Your task to perform on an android device: clear all cookies in the chrome app Image 0: 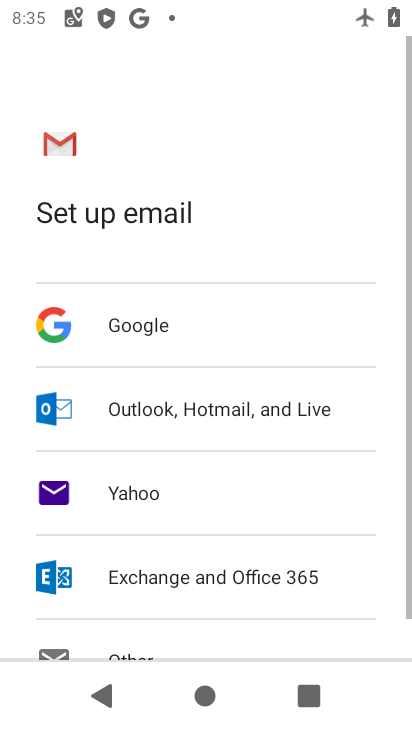
Step 0: press home button
Your task to perform on an android device: clear all cookies in the chrome app Image 1: 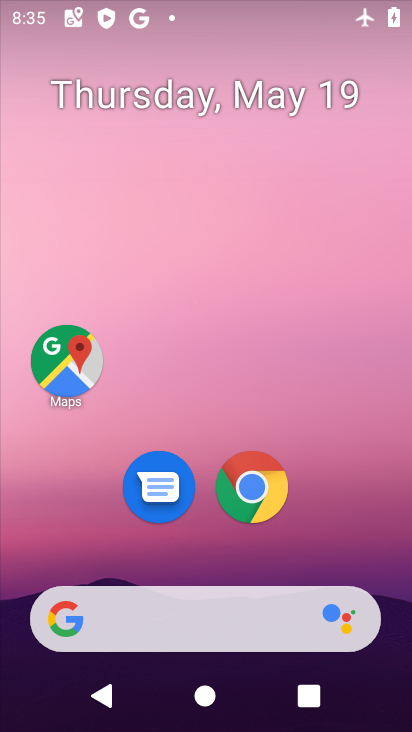
Step 1: click (249, 494)
Your task to perform on an android device: clear all cookies in the chrome app Image 2: 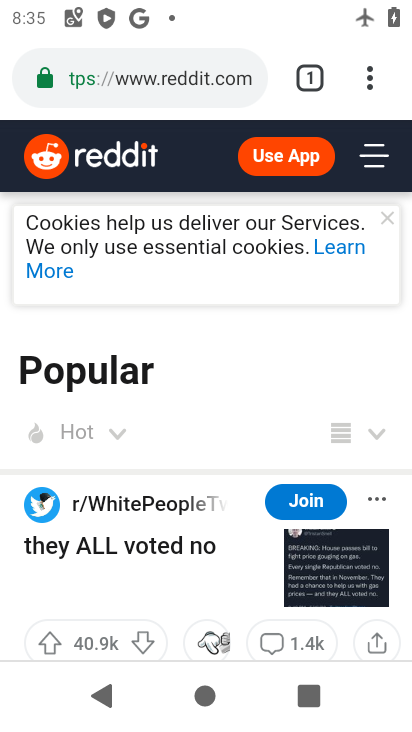
Step 2: click (359, 84)
Your task to perform on an android device: clear all cookies in the chrome app Image 3: 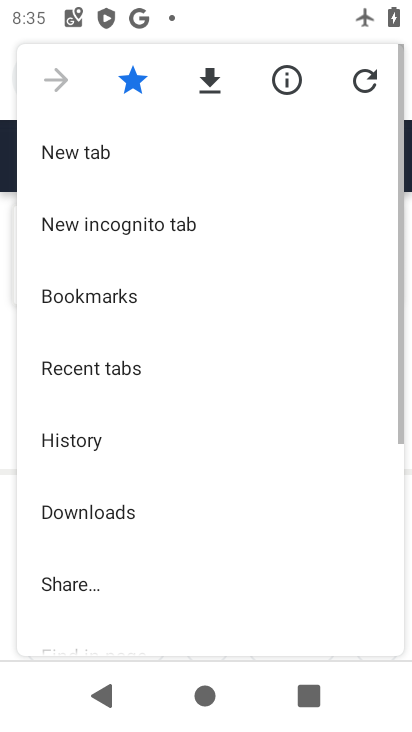
Step 3: drag from (242, 578) to (231, 131)
Your task to perform on an android device: clear all cookies in the chrome app Image 4: 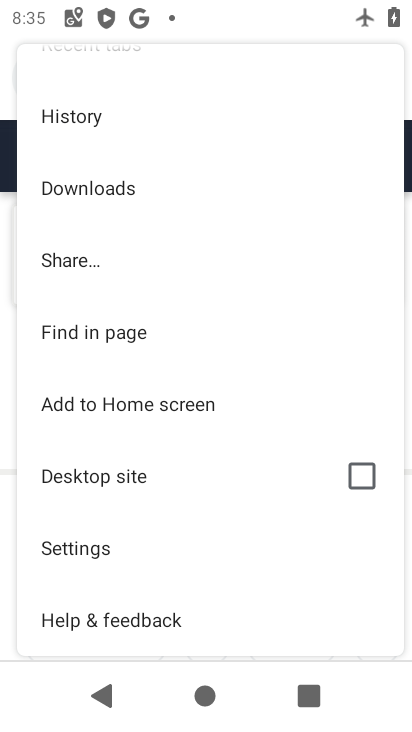
Step 4: click (81, 551)
Your task to perform on an android device: clear all cookies in the chrome app Image 5: 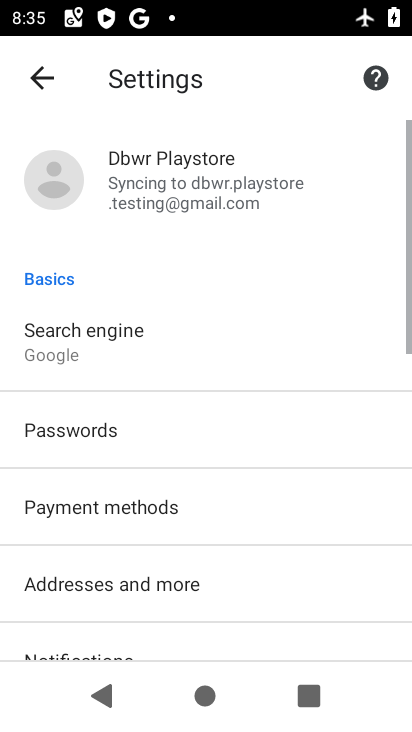
Step 5: drag from (122, 576) to (96, 133)
Your task to perform on an android device: clear all cookies in the chrome app Image 6: 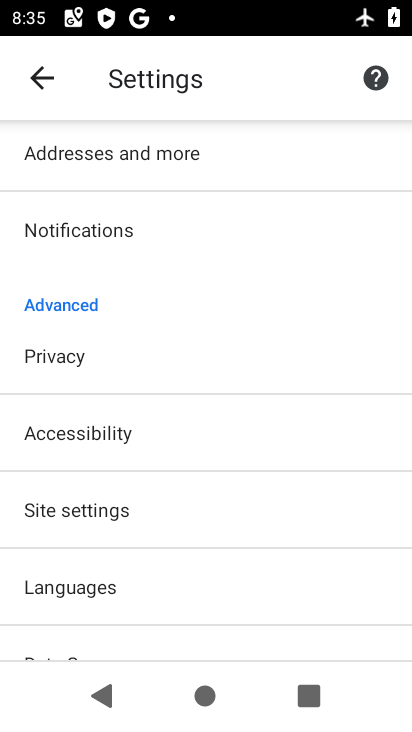
Step 6: click (69, 357)
Your task to perform on an android device: clear all cookies in the chrome app Image 7: 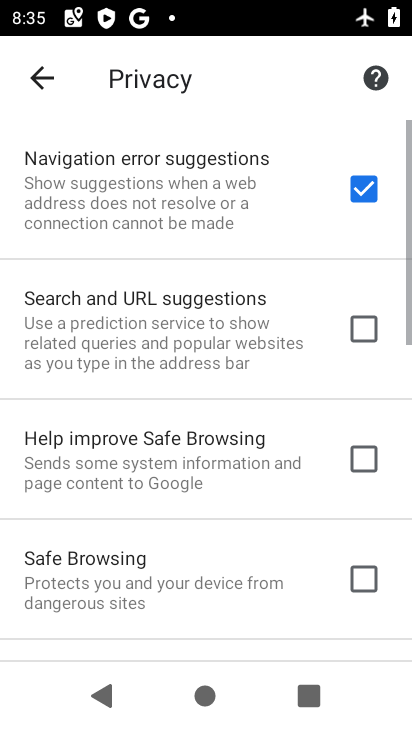
Step 7: drag from (173, 564) to (114, 104)
Your task to perform on an android device: clear all cookies in the chrome app Image 8: 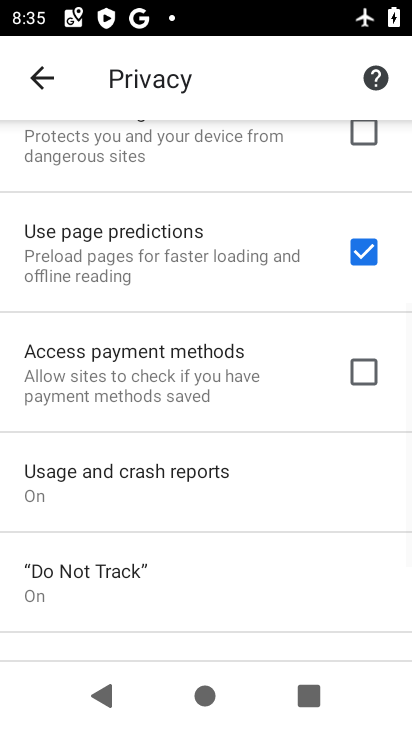
Step 8: drag from (190, 573) to (150, 179)
Your task to perform on an android device: clear all cookies in the chrome app Image 9: 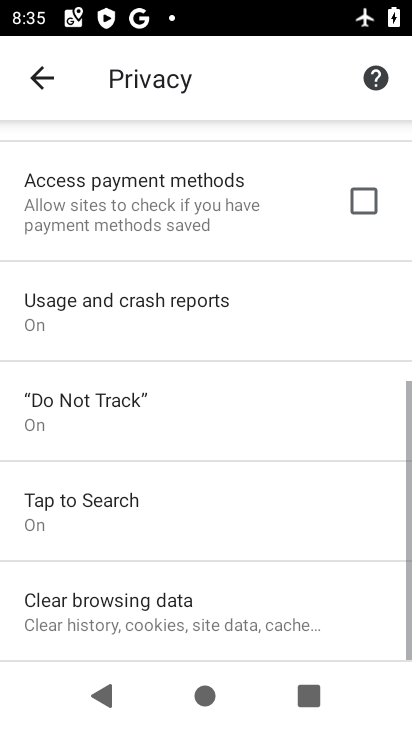
Step 9: click (192, 597)
Your task to perform on an android device: clear all cookies in the chrome app Image 10: 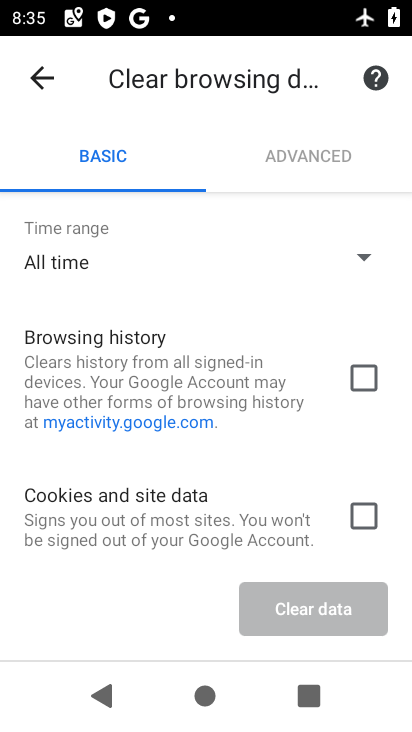
Step 10: drag from (190, 508) to (146, 281)
Your task to perform on an android device: clear all cookies in the chrome app Image 11: 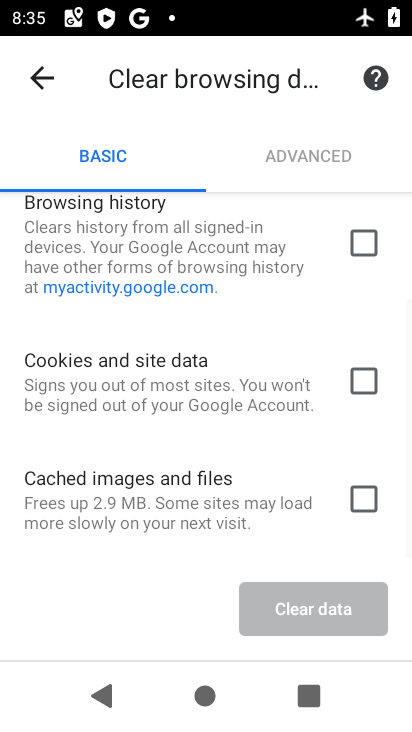
Step 11: click (189, 381)
Your task to perform on an android device: clear all cookies in the chrome app Image 12: 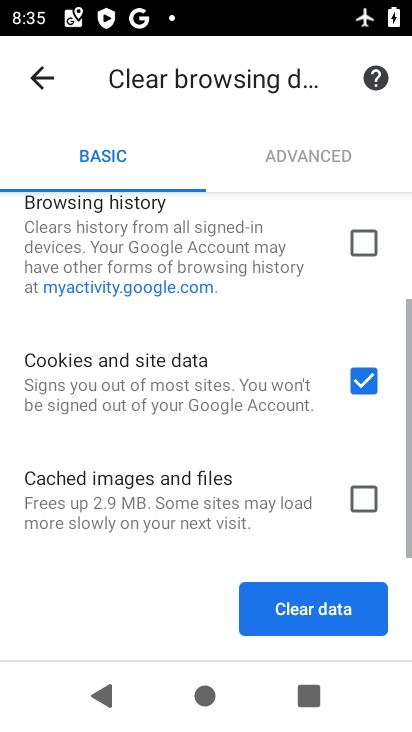
Step 12: click (213, 287)
Your task to perform on an android device: clear all cookies in the chrome app Image 13: 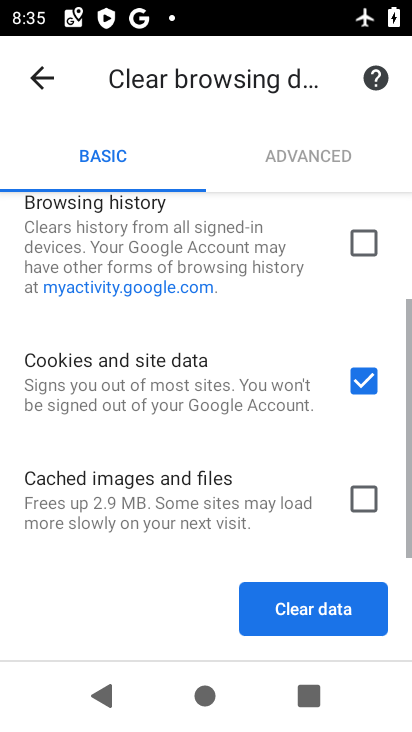
Step 13: click (319, 594)
Your task to perform on an android device: clear all cookies in the chrome app Image 14: 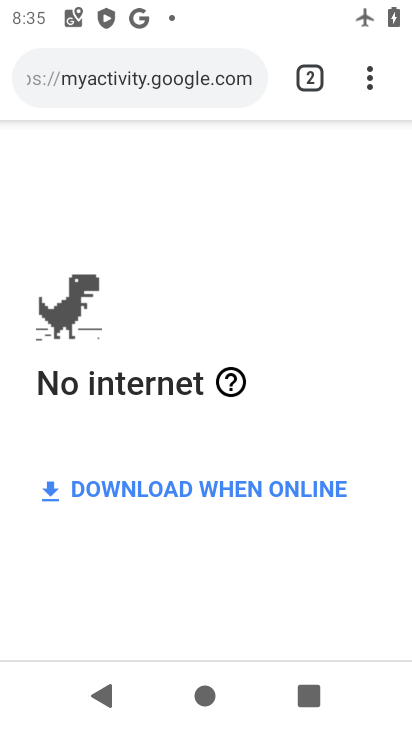
Step 14: task complete